Your task to perform on an android device: make emails show in primary in the gmail app Image 0: 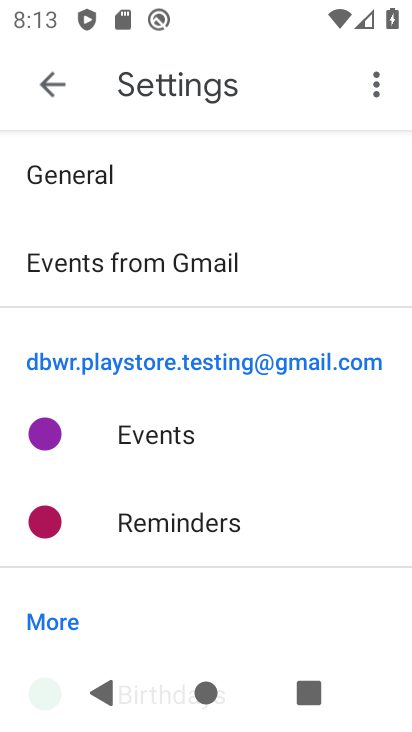
Step 0: press home button
Your task to perform on an android device: make emails show in primary in the gmail app Image 1: 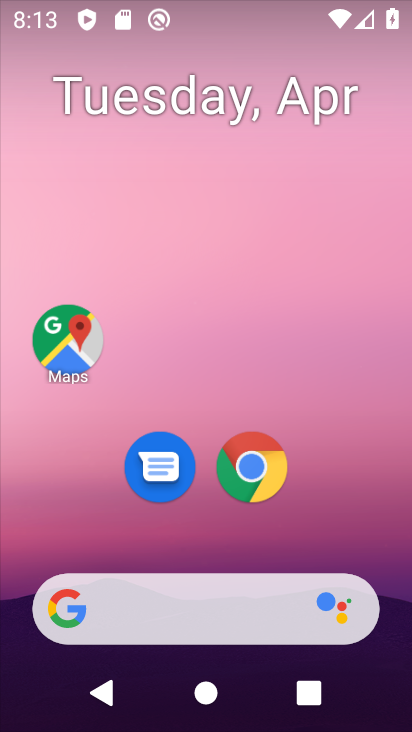
Step 1: drag from (389, 355) to (381, 0)
Your task to perform on an android device: make emails show in primary in the gmail app Image 2: 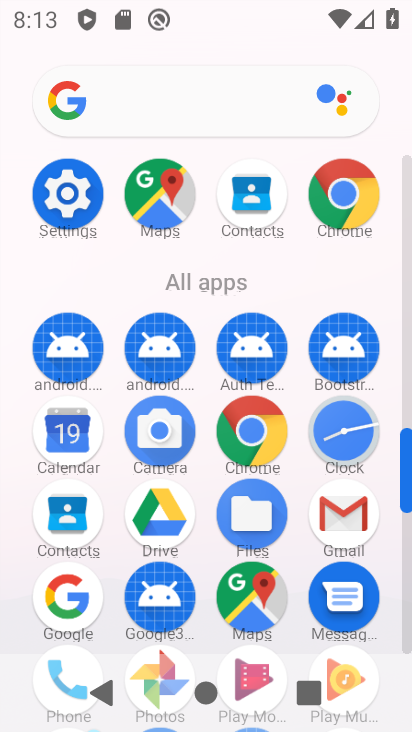
Step 2: click (353, 511)
Your task to perform on an android device: make emails show in primary in the gmail app Image 3: 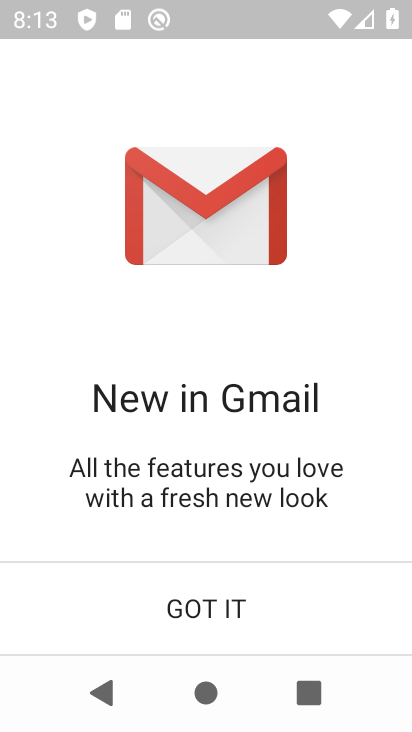
Step 3: click (221, 602)
Your task to perform on an android device: make emails show in primary in the gmail app Image 4: 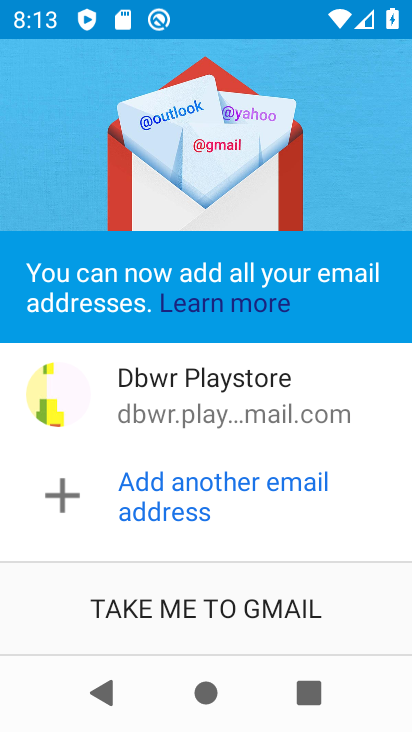
Step 4: click (221, 602)
Your task to perform on an android device: make emails show in primary in the gmail app Image 5: 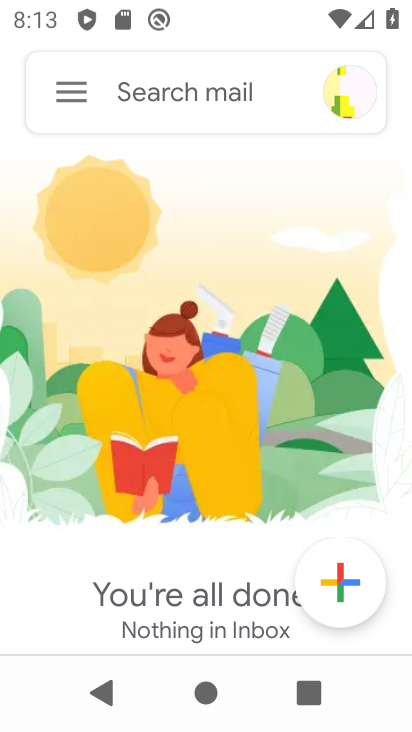
Step 5: click (71, 96)
Your task to perform on an android device: make emails show in primary in the gmail app Image 6: 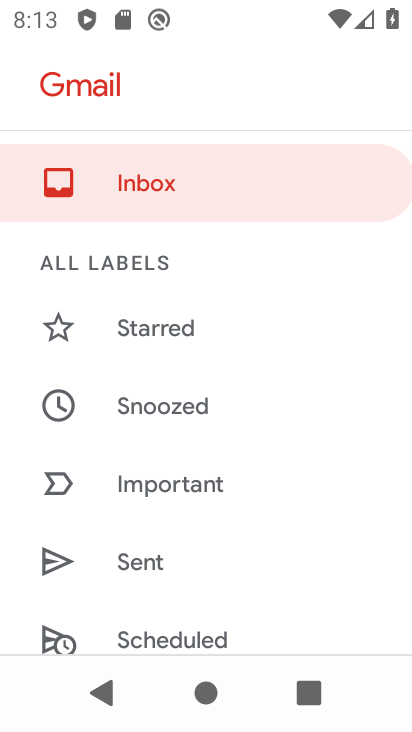
Step 6: drag from (312, 539) to (296, 119)
Your task to perform on an android device: make emails show in primary in the gmail app Image 7: 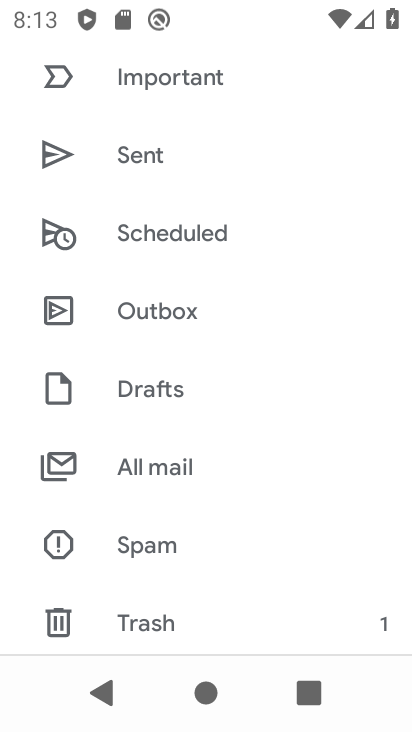
Step 7: drag from (293, 501) to (284, 180)
Your task to perform on an android device: make emails show in primary in the gmail app Image 8: 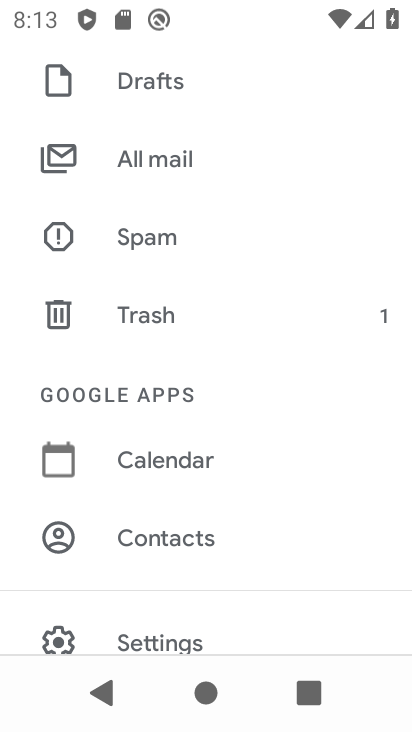
Step 8: drag from (246, 483) to (224, 155)
Your task to perform on an android device: make emails show in primary in the gmail app Image 9: 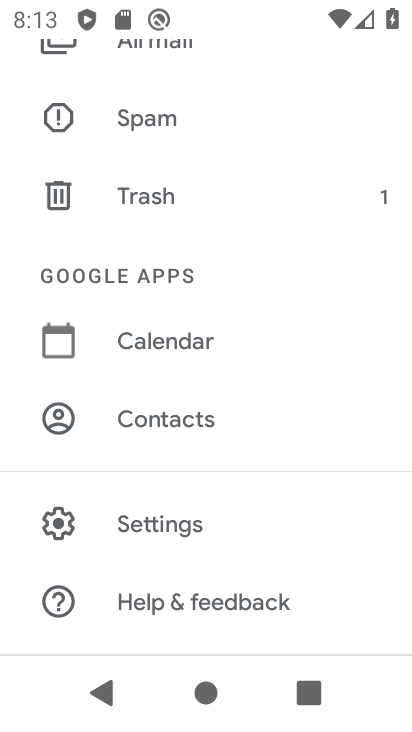
Step 9: click (135, 515)
Your task to perform on an android device: make emails show in primary in the gmail app Image 10: 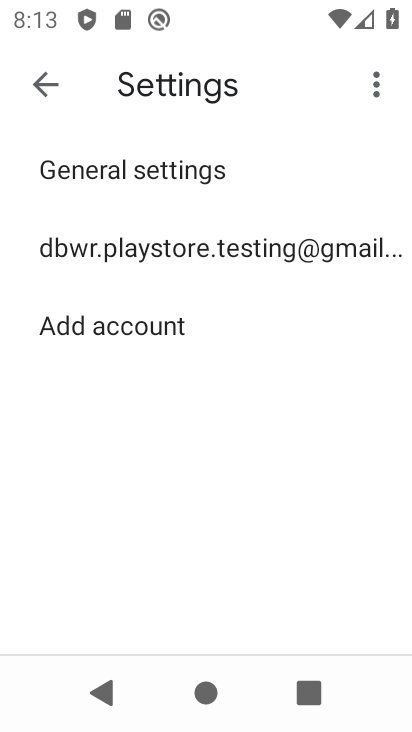
Step 10: click (132, 248)
Your task to perform on an android device: make emails show in primary in the gmail app Image 11: 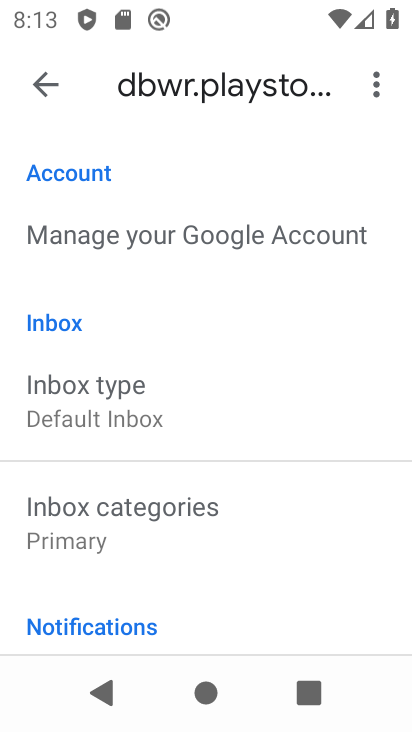
Step 11: click (122, 509)
Your task to perform on an android device: make emails show in primary in the gmail app Image 12: 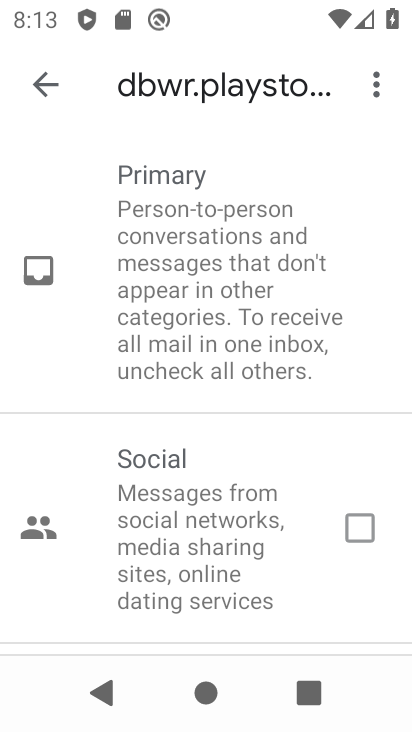
Step 12: task complete